Your task to perform on an android device: turn on airplane mode Image 0: 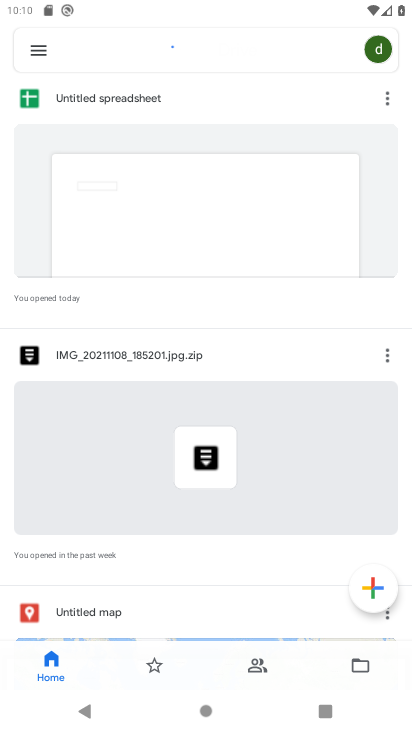
Step 0: press back button
Your task to perform on an android device: turn on airplane mode Image 1: 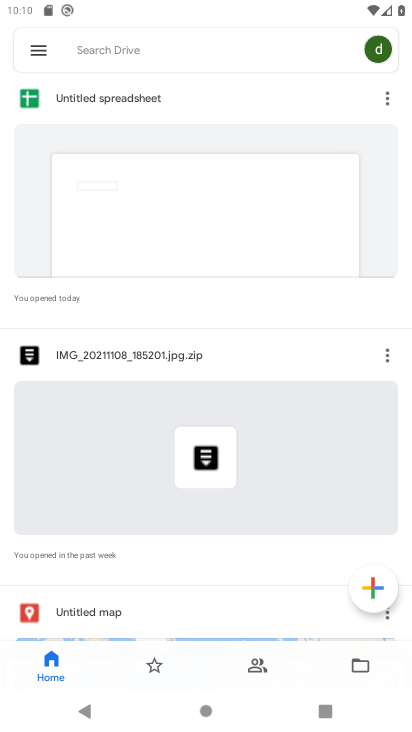
Step 1: press back button
Your task to perform on an android device: turn on airplane mode Image 2: 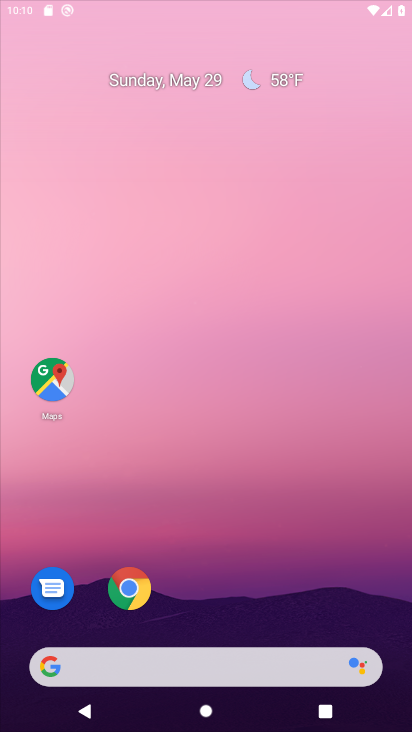
Step 2: press back button
Your task to perform on an android device: turn on airplane mode Image 3: 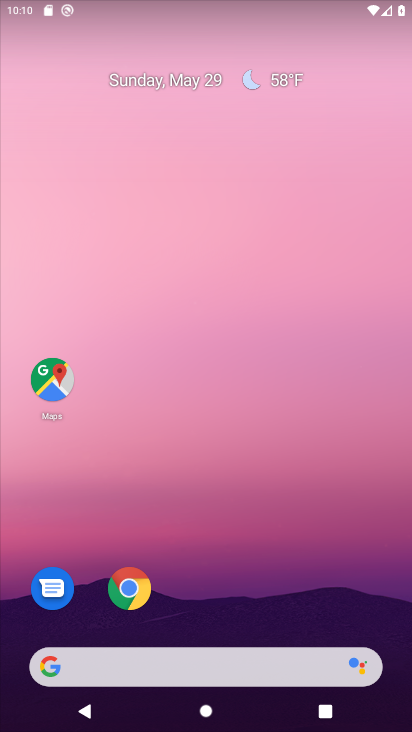
Step 3: press back button
Your task to perform on an android device: turn on airplane mode Image 4: 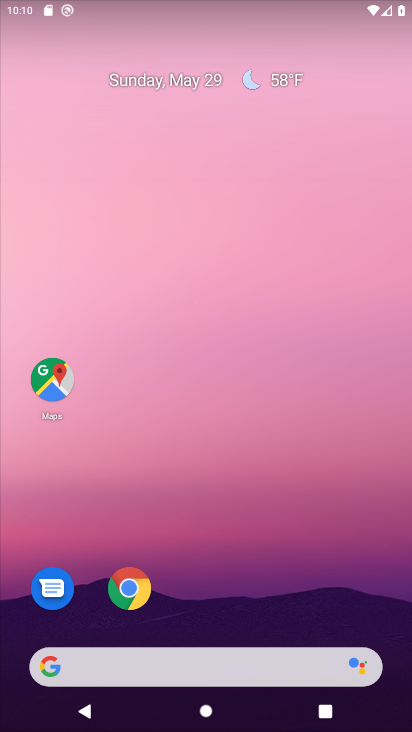
Step 4: drag from (240, 664) to (193, 48)
Your task to perform on an android device: turn on airplane mode Image 5: 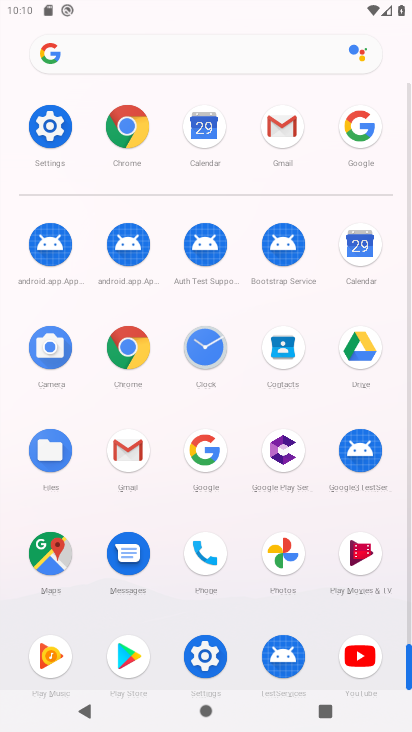
Step 5: click (53, 130)
Your task to perform on an android device: turn on airplane mode Image 6: 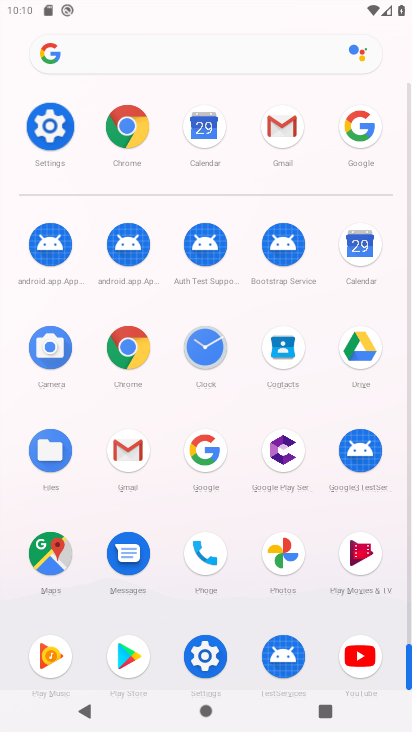
Step 6: click (53, 130)
Your task to perform on an android device: turn on airplane mode Image 7: 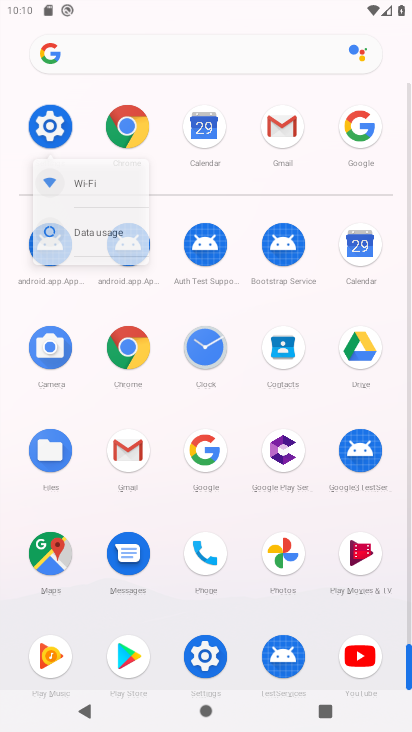
Step 7: click (53, 129)
Your task to perform on an android device: turn on airplane mode Image 8: 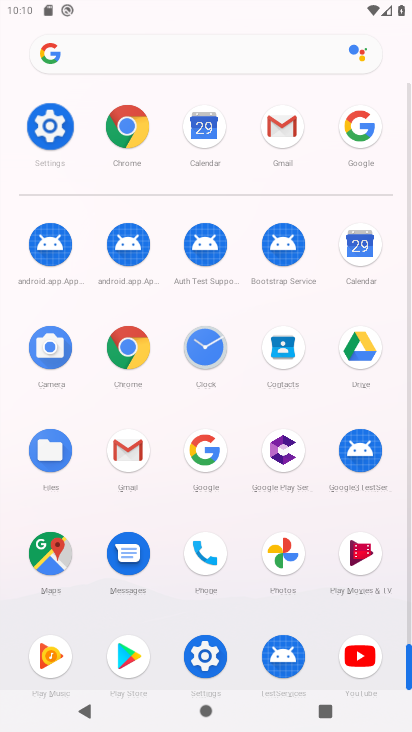
Step 8: click (53, 129)
Your task to perform on an android device: turn on airplane mode Image 9: 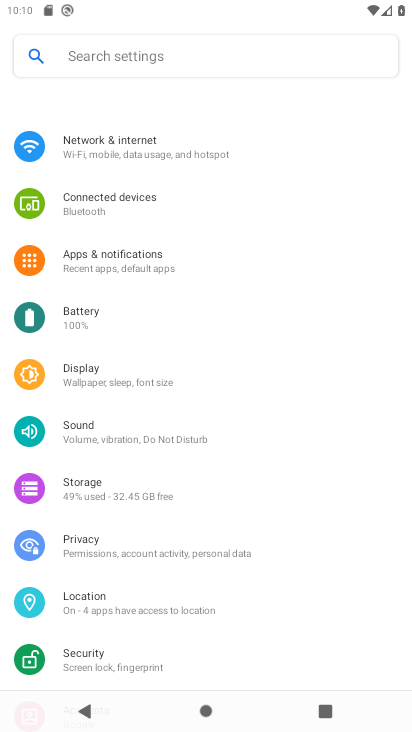
Step 9: click (53, 128)
Your task to perform on an android device: turn on airplane mode Image 10: 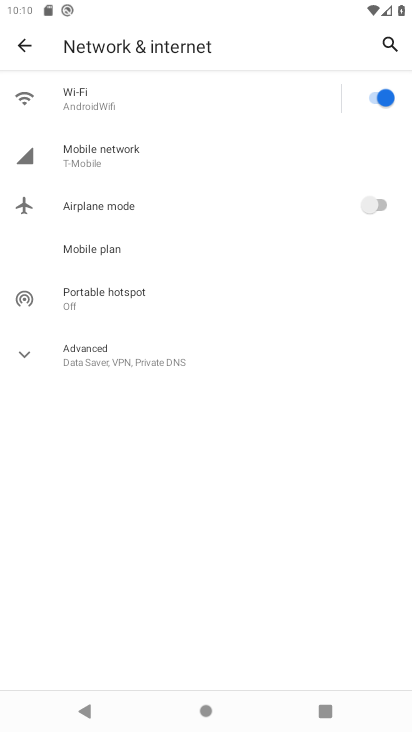
Step 10: click (377, 205)
Your task to perform on an android device: turn on airplane mode Image 11: 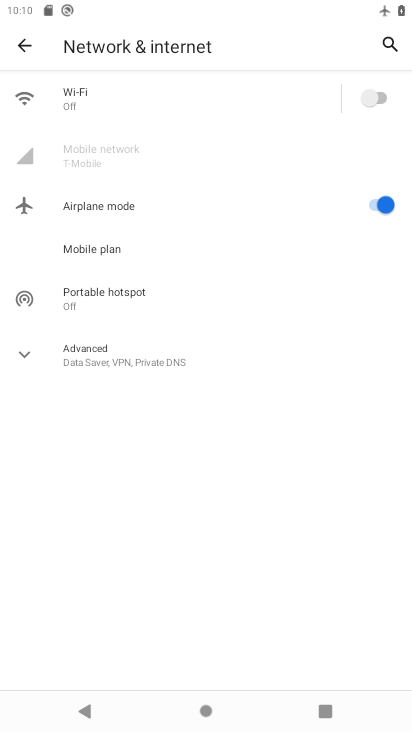
Step 11: task complete